Your task to perform on an android device: change alarm snooze length Image 0: 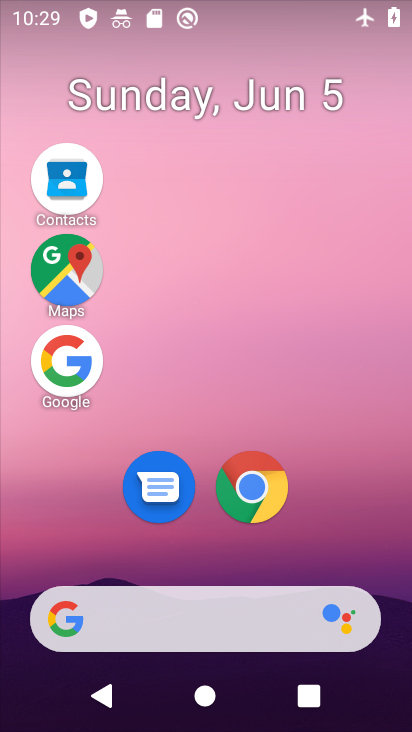
Step 0: drag from (199, 538) to (189, 114)
Your task to perform on an android device: change alarm snooze length Image 1: 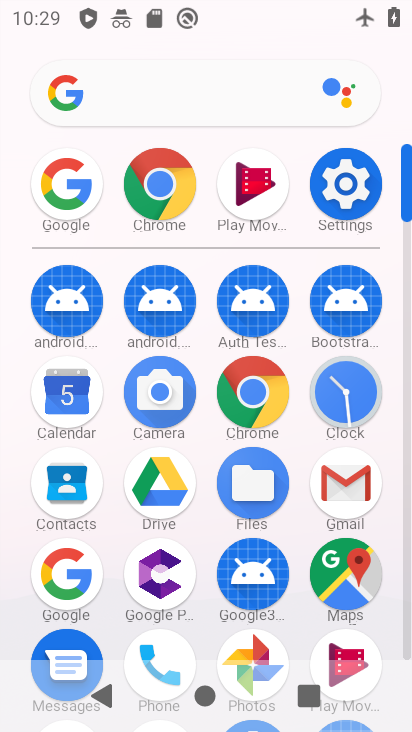
Step 1: click (349, 395)
Your task to perform on an android device: change alarm snooze length Image 2: 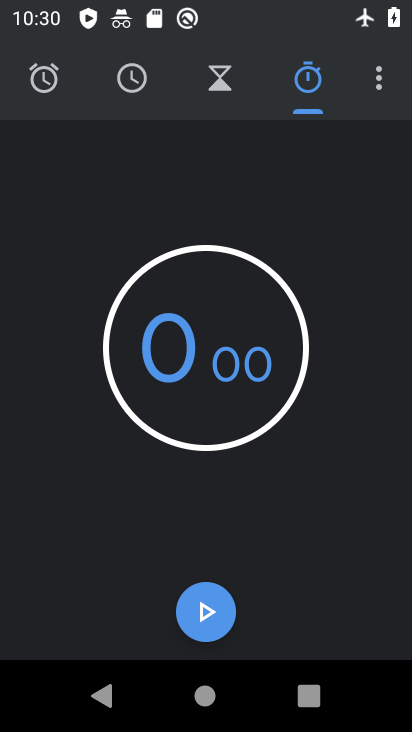
Step 2: click (47, 96)
Your task to perform on an android device: change alarm snooze length Image 3: 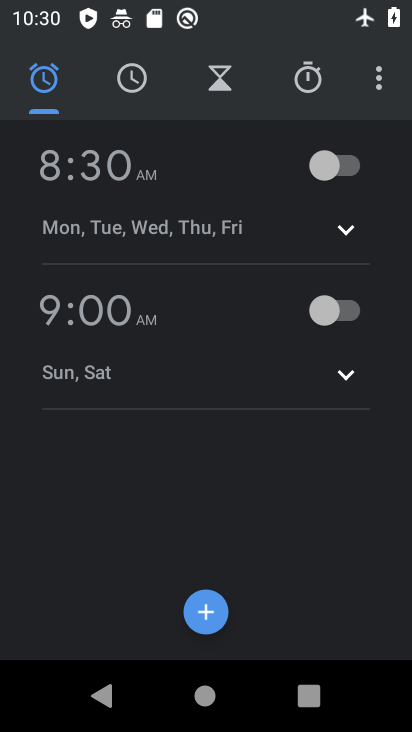
Step 3: click (391, 78)
Your task to perform on an android device: change alarm snooze length Image 4: 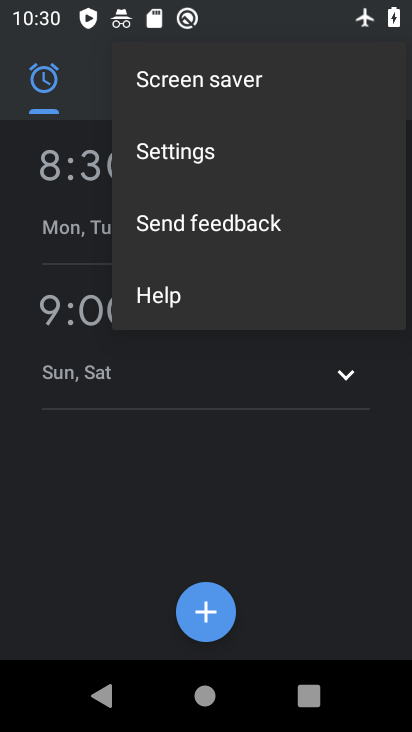
Step 4: click (197, 157)
Your task to perform on an android device: change alarm snooze length Image 5: 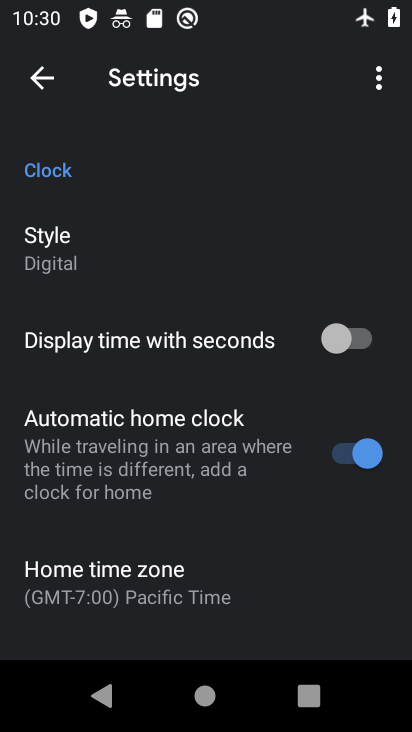
Step 5: drag from (152, 456) to (178, 108)
Your task to perform on an android device: change alarm snooze length Image 6: 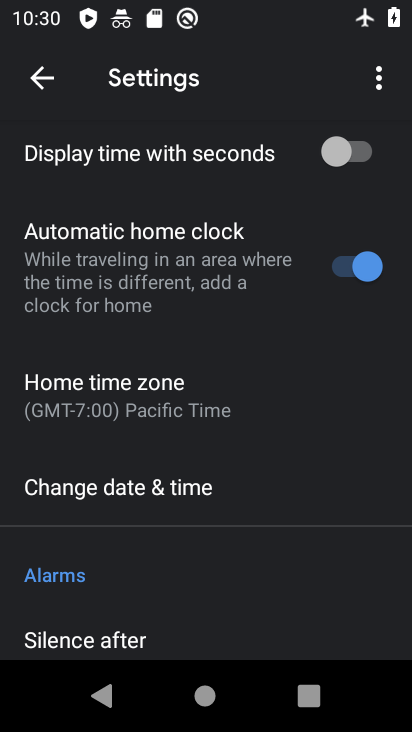
Step 6: drag from (203, 534) to (222, 121)
Your task to perform on an android device: change alarm snooze length Image 7: 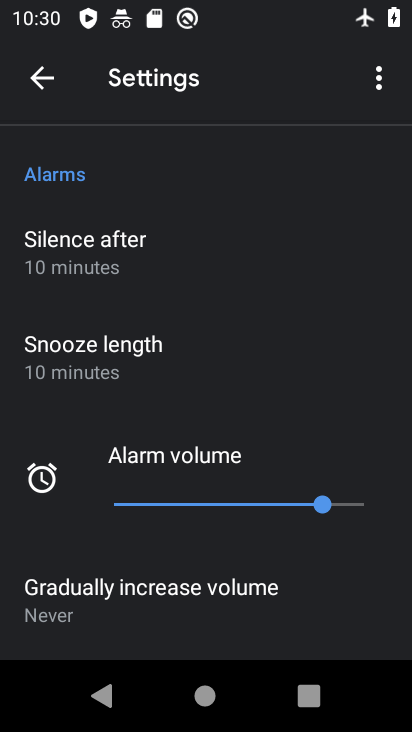
Step 7: click (149, 329)
Your task to perform on an android device: change alarm snooze length Image 8: 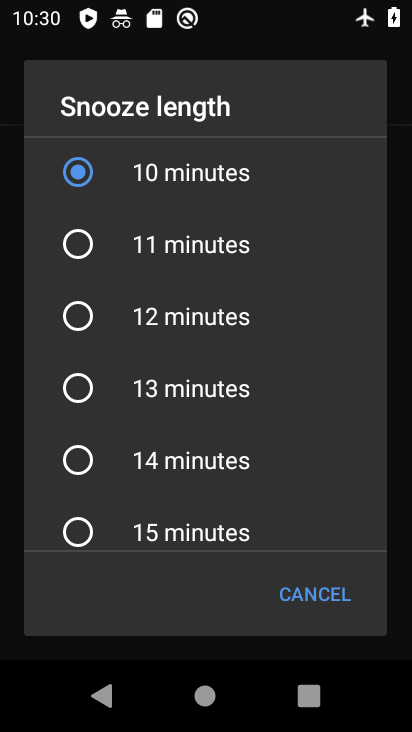
Step 8: click (178, 250)
Your task to perform on an android device: change alarm snooze length Image 9: 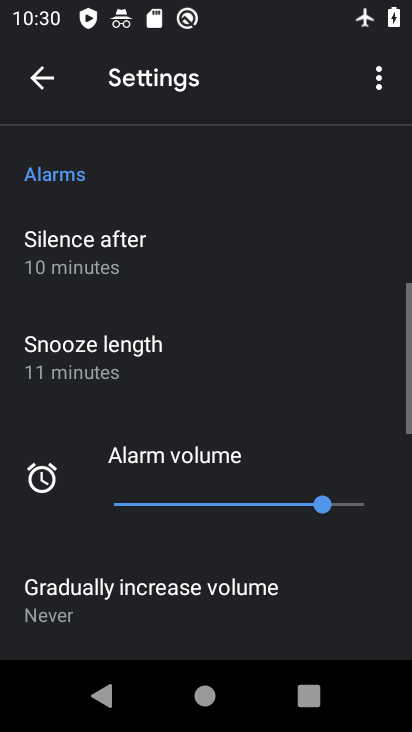
Step 9: task complete